Your task to perform on an android device: Open maps Image 0: 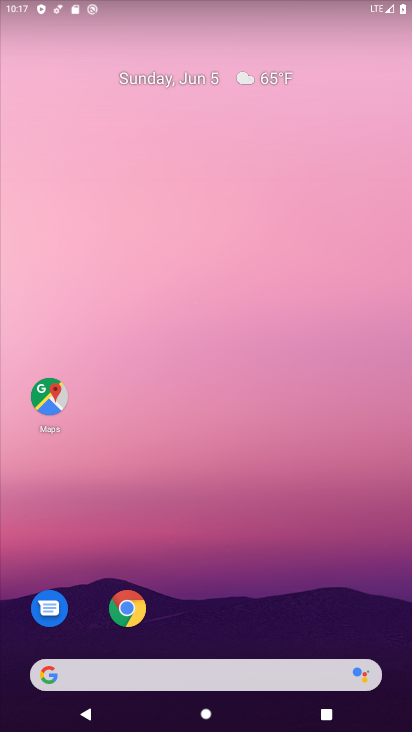
Step 0: click (56, 402)
Your task to perform on an android device: Open maps Image 1: 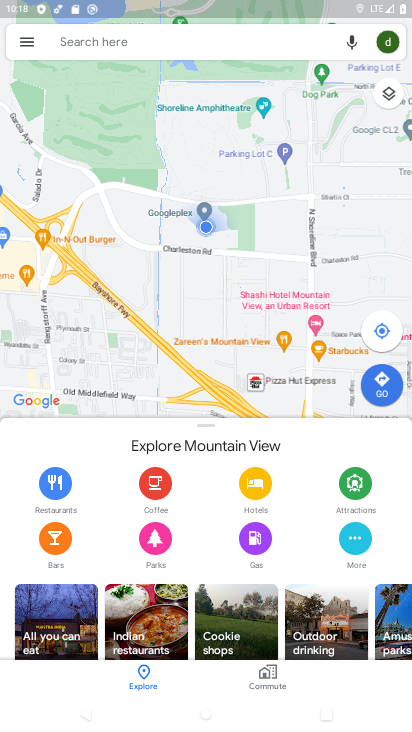
Step 1: task complete